Your task to perform on an android device: turn smart compose on in the gmail app Image 0: 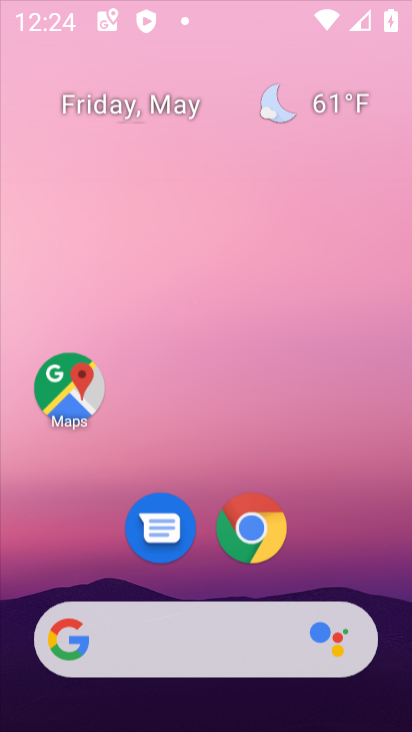
Step 0: click (412, 528)
Your task to perform on an android device: turn smart compose on in the gmail app Image 1: 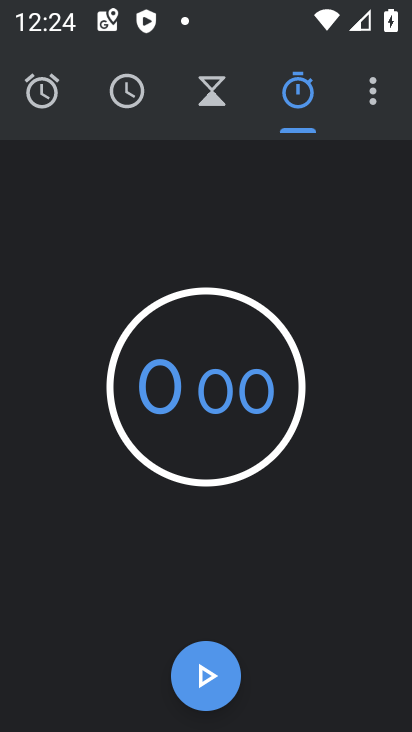
Step 1: press home button
Your task to perform on an android device: turn smart compose on in the gmail app Image 2: 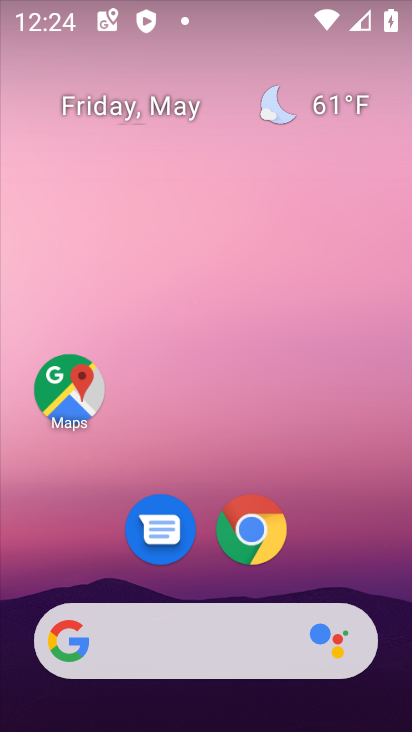
Step 2: drag from (336, 541) to (293, 7)
Your task to perform on an android device: turn smart compose on in the gmail app Image 3: 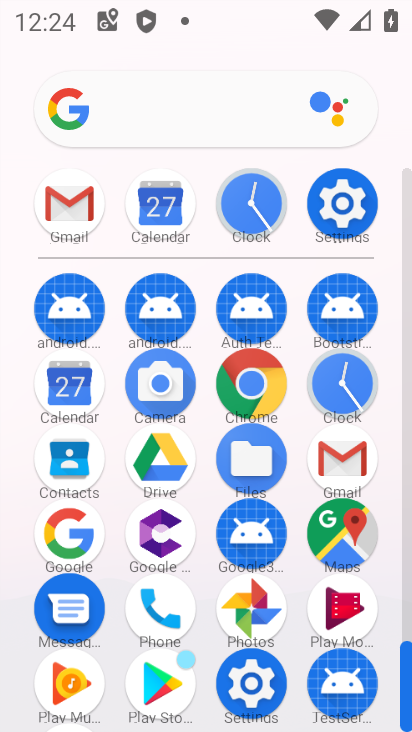
Step 3: click (51, 223)
Your task to perform on an android device: turn smart compose on in the gmail app Image 4: 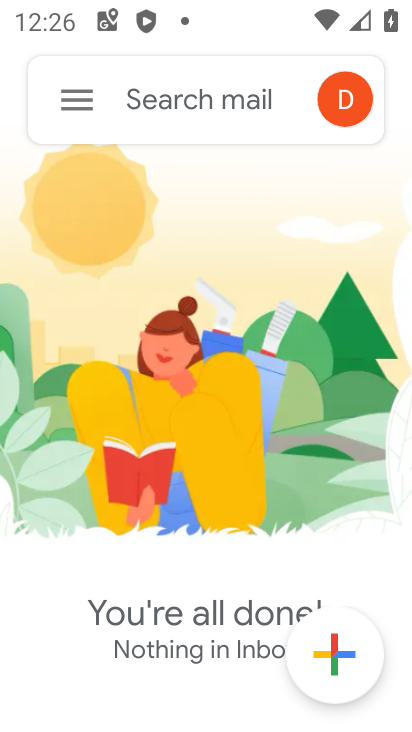
Step 4: click (74, 94)
Your task to perform on an android device: turn smart compose on in the gmail app Image 5: 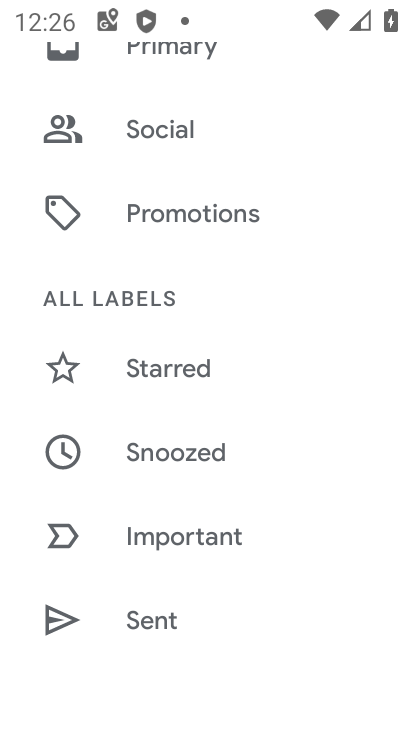
Step 5: drag from (136, 558) to (150, 242)
Your task to perform on an android device: turn smart compose on in the gmail app Image 6: 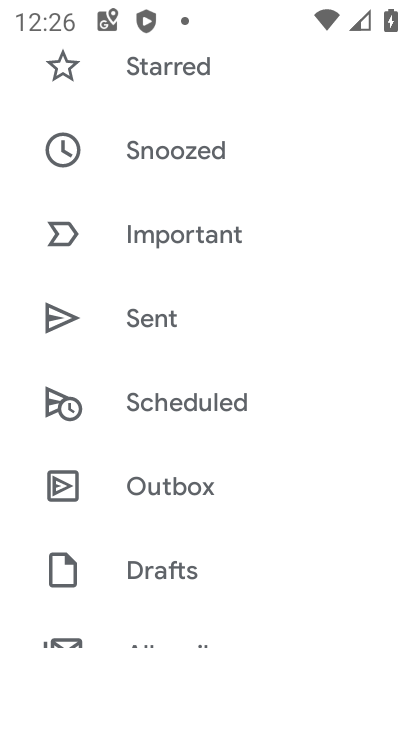
Step 6: drag from (182, 567) to (181, 237)
Your task to perform on an android device: turn smart compose on in the gmail app Image 7: 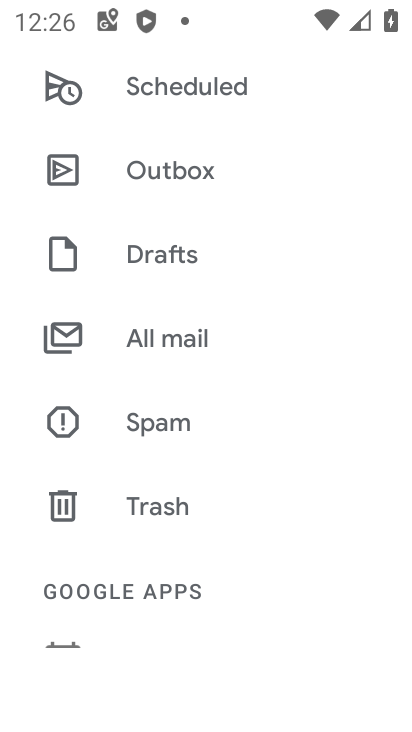
Step 7: drag from (283, 585) to (284, 344)
Your task to perform on an android device: turn smart compose on in the gmail app Image 8: 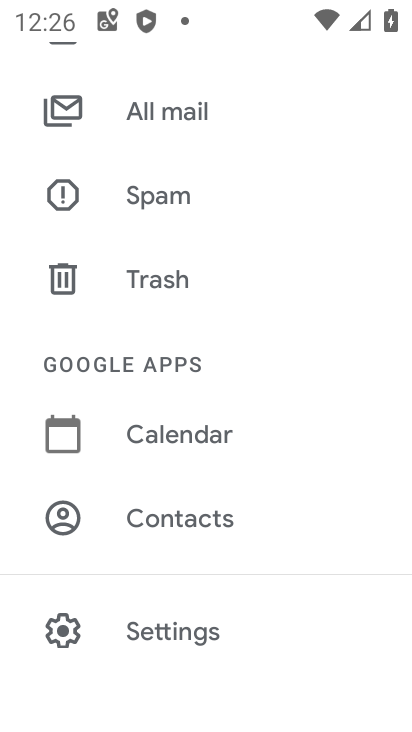
Step 8: click (239, 604)
Your task to perform on an android device: turn smart compose on in the gmail app Image 9: 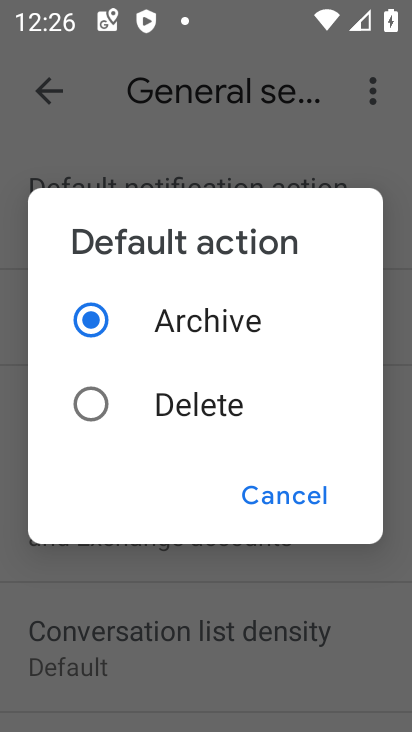
Step 9: click (268, 487)
Your task to perform on an android device: turn smart compose on in the gmail app Image 10: 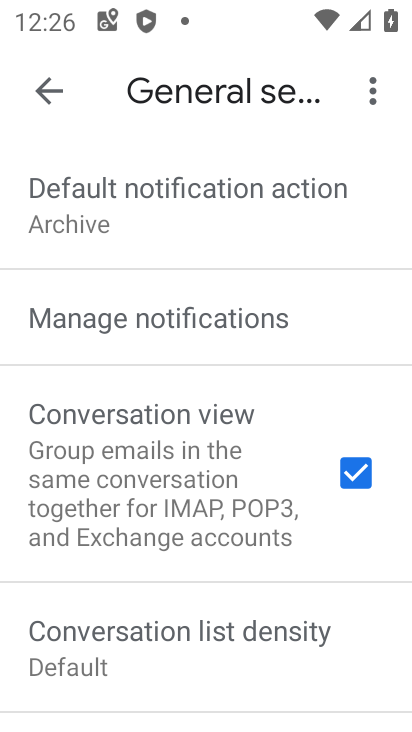
Step 10: task complete